Your task to perform on an android device: Check the news Image 0: 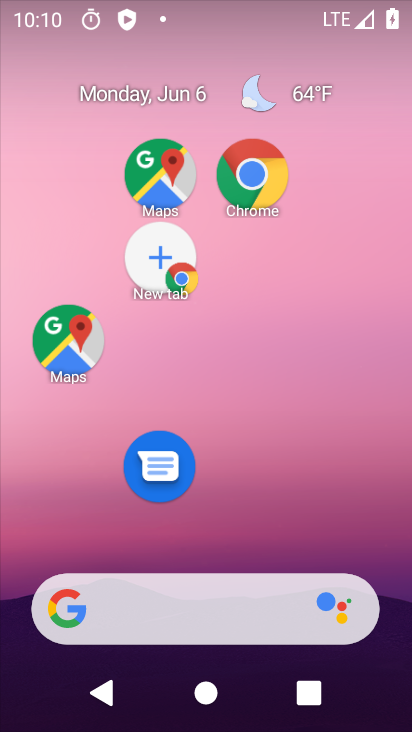
Step 0: drag from (33, 252) to (359, 343)
Your task to perform on an android device: Check the news Image 1: 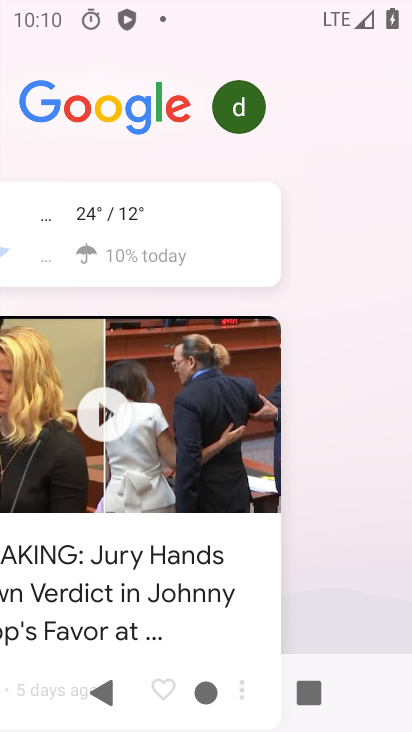
Step 1: drag from (12, 227) to (325, 252)
Your task to perform on an android device: Check the news Image 2: 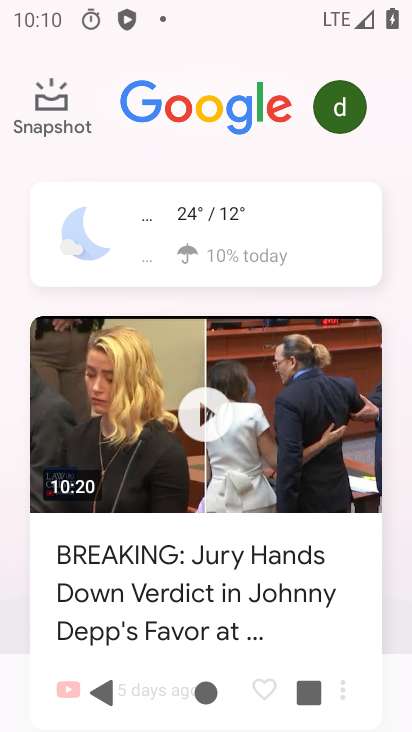
Step 2: drag from (36, 182) to (405, 396)
Your task to perform on an android device: Check the news Image 3: 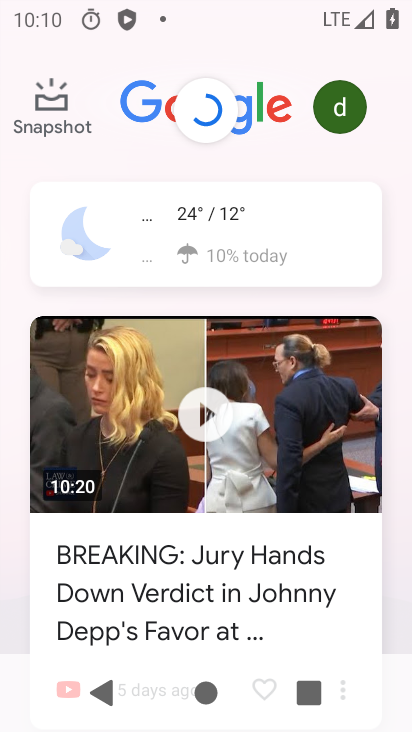
Step 3: click (405, 568)
Your task to perform on an android device: Check the news Image 4: 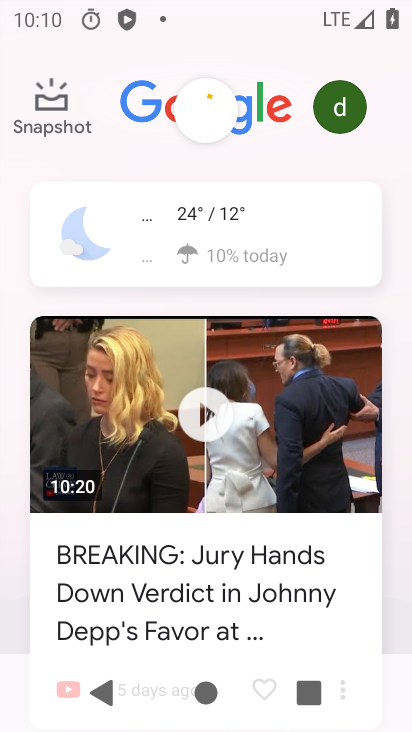
Step 4: drag from (111, 315) to (403, 538)
Your task to perform on an android device: Check the news Image 5: 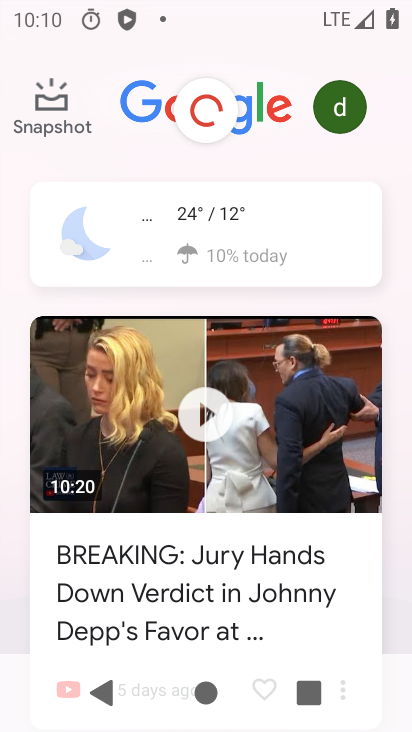
Step 5: click (187, 221)
Your task to perform on an android device: Check the news Image 6: 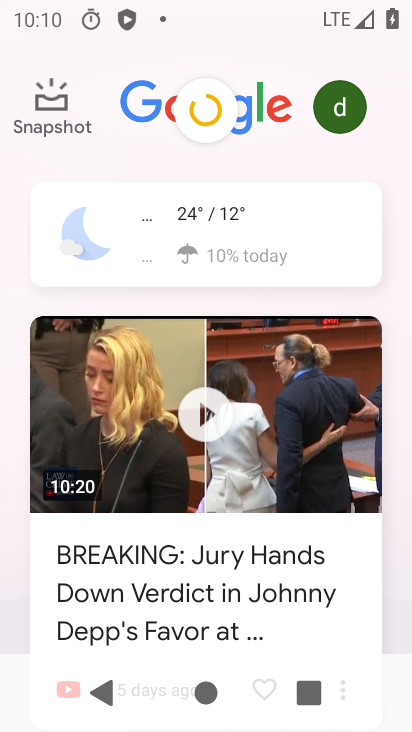
Step 6: task complete